Your task to perform on an android device: Find coffee shops on Maps Image 0: 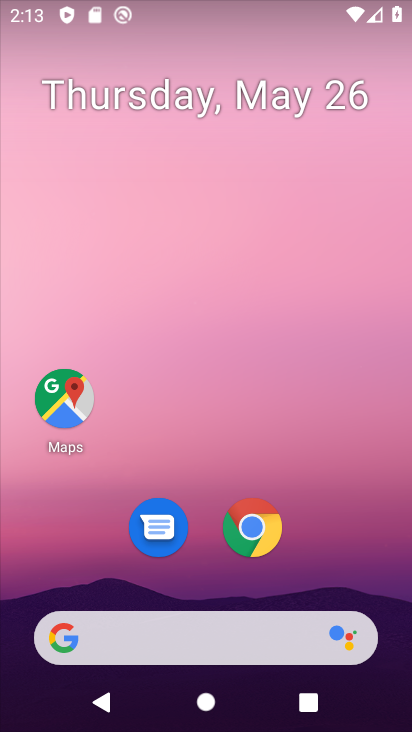
Step 0: click (76, 387)
Your task to perform on an android device: Find coffee shops on Maps Image 1: 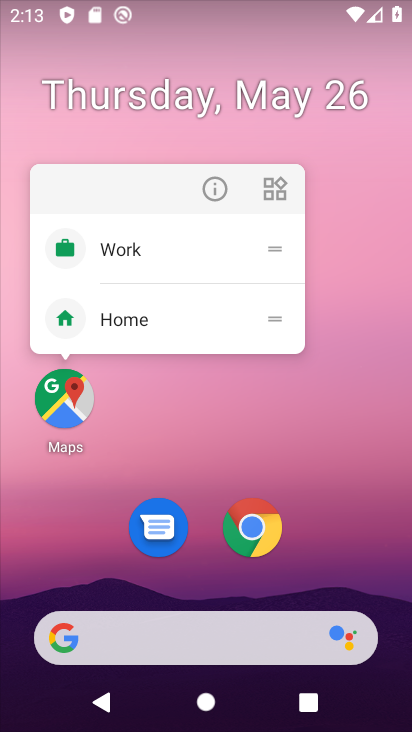
Step 1: click (67, 393)
Your task to perform on an android device: Find coffee shops on Maps Image 2: 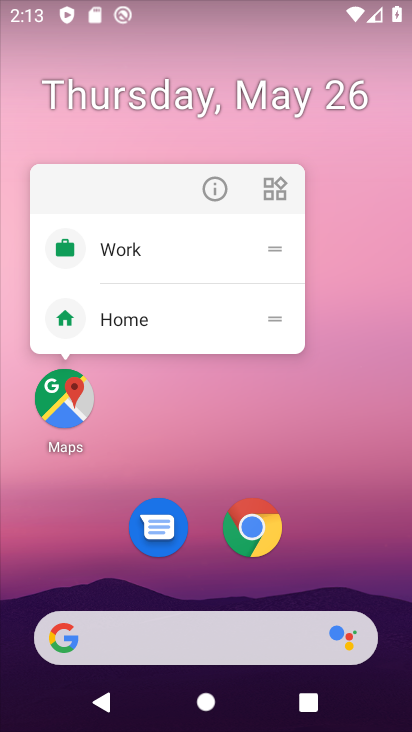
Step 2: click (61, 400)
Your task to perform on an android device: Find coffee shops on Maps Image 3: 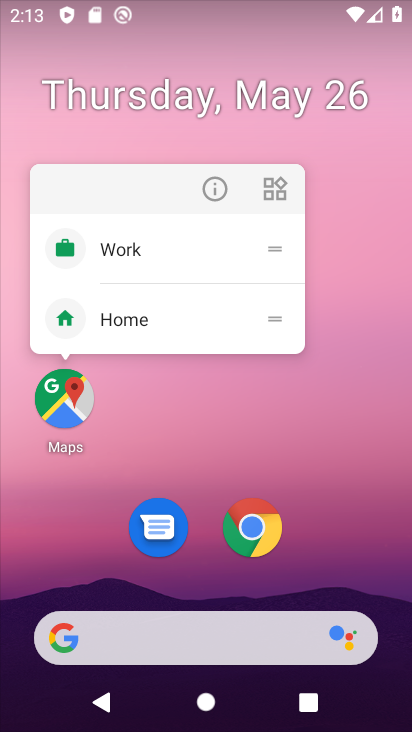
Step 3: click (66, 406)
Your task to perform on an android device: Find coffee shops on Maps Image 4: 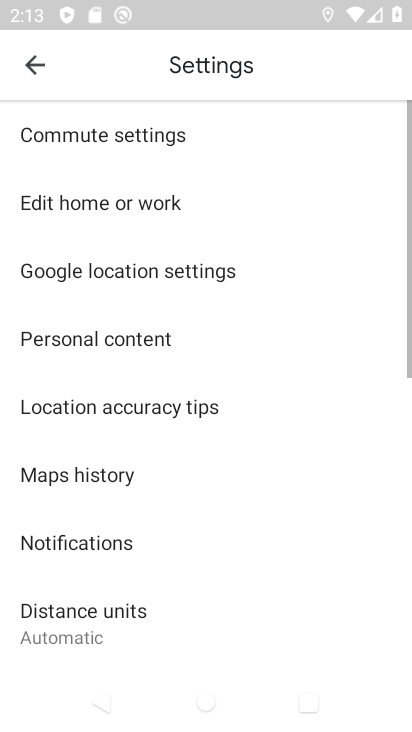
Step 4: click (40, 53)
Your task to perform on an android device: Find coffee shops on Maps Image 5: 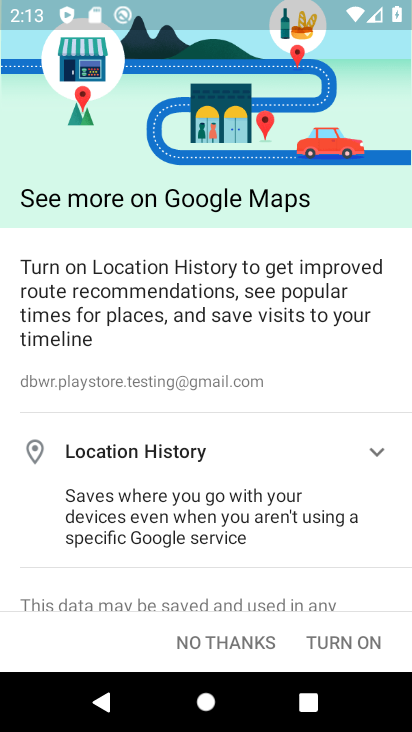
Step 5: click (205, 626)
Your task to perform on an android device: Find coffee shops on Maps Image 6: 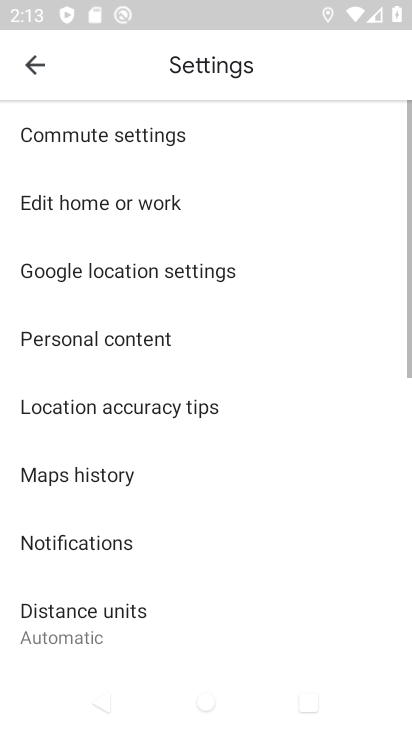
Step 6: click (32, 54)
Your task to perform on an android device: Find coffee shops on Maps Image 7: 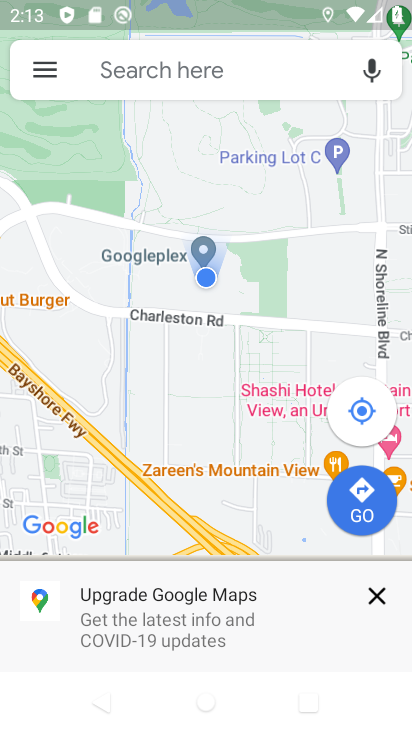
Step 7: click (260, 81)
Your task to perform on an android device: Find coffee shops on Maps Image 8: 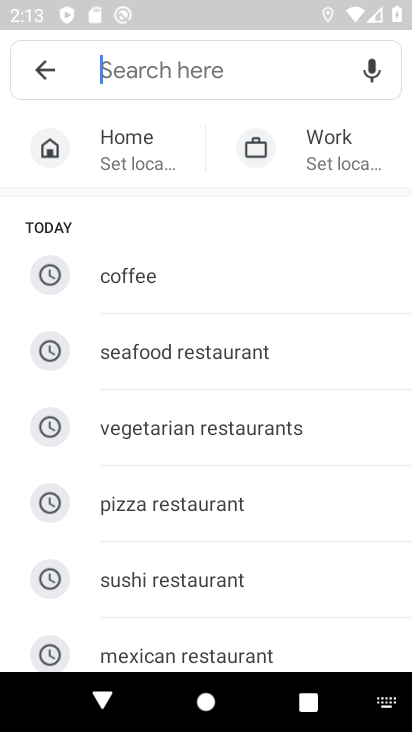
Step 8: type "coffee shops"
Your task to perform on an android device: Find coffee shops on Maps Image 9: 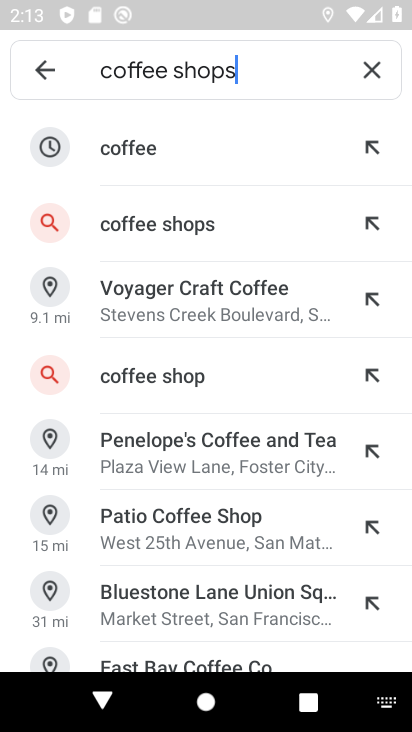
Step 9: click (223, 220)
Your task to perform on an android device: Find coffee shops on Maps Image 10: 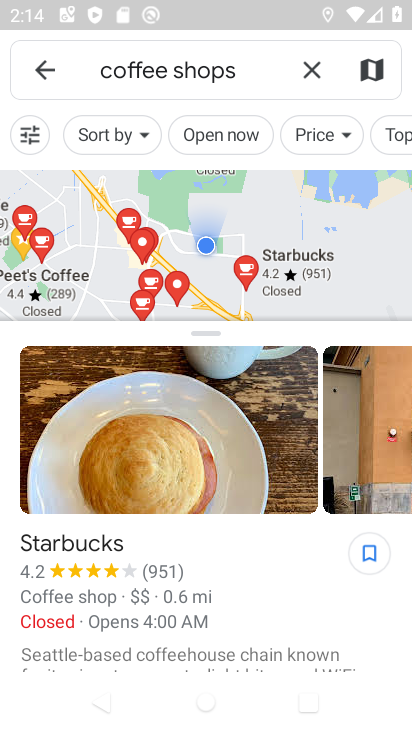
Step 10: task complete